Your task to perform on an android device: What is the news today? Image 0: 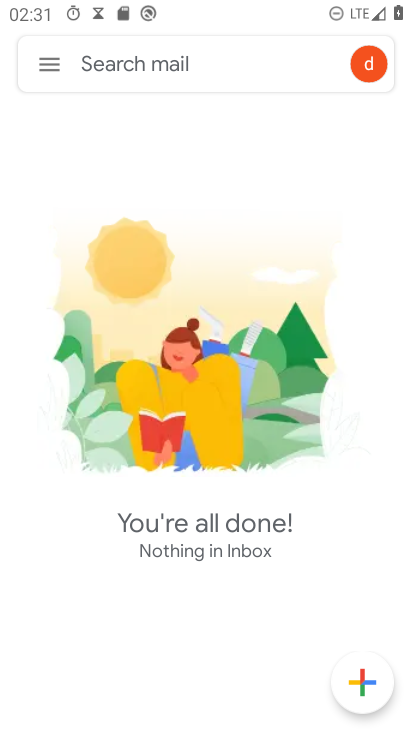
Step 0: press home button
Your task to perform on an android device: What is the news today? Image 1: 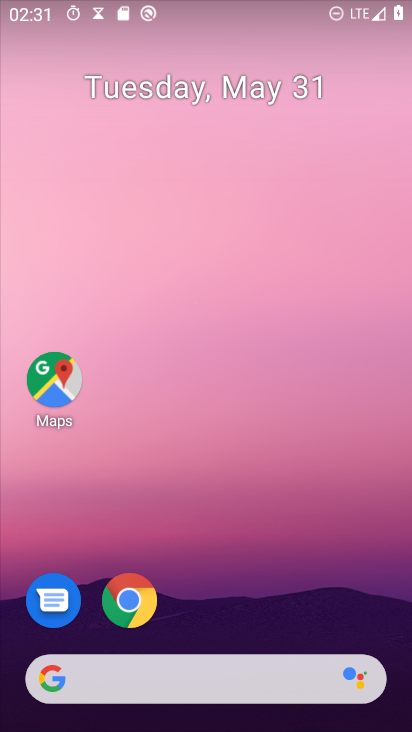
Step 1: task complete